Your task to perform on an android device: change the clock display to show seconds Image 0: 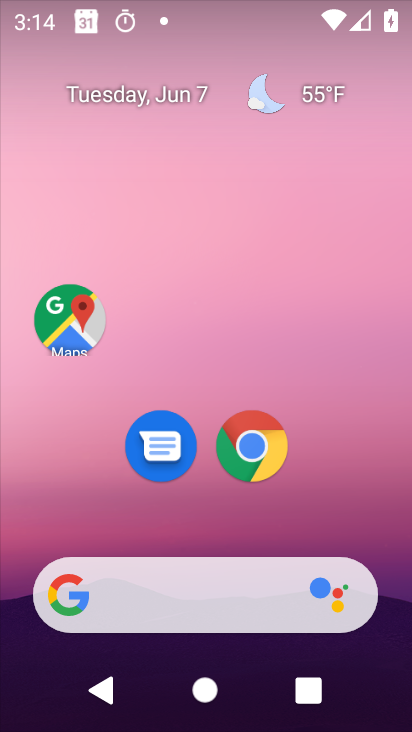
Step 0: drag from (248, 535) to (268, 1)
Your task to perform on an android device: change the clock display to show seconds Image 1: 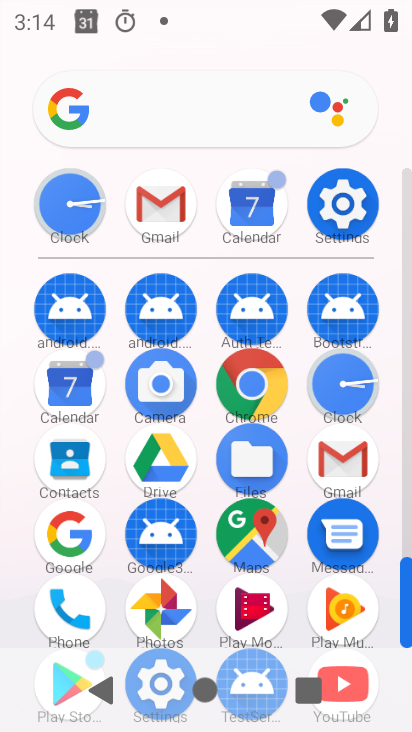
Step 1: click (345, 379)
Your task to perform on an android device: change the clock display to show seconds Image 2: 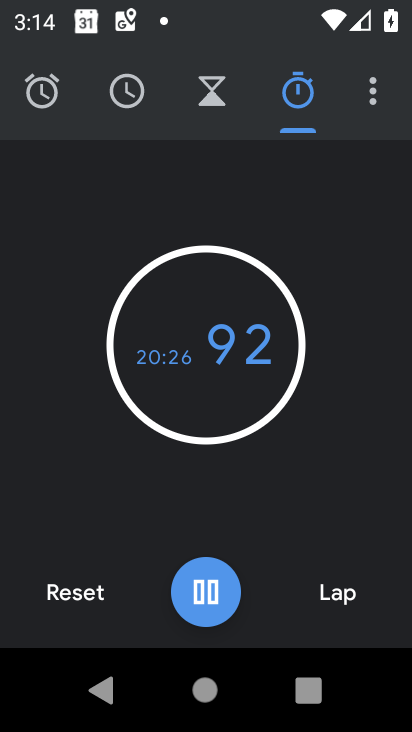
Step 2: click (69, 596)
Your task to perform on an android device: change the clock display to show seconds Image 3: 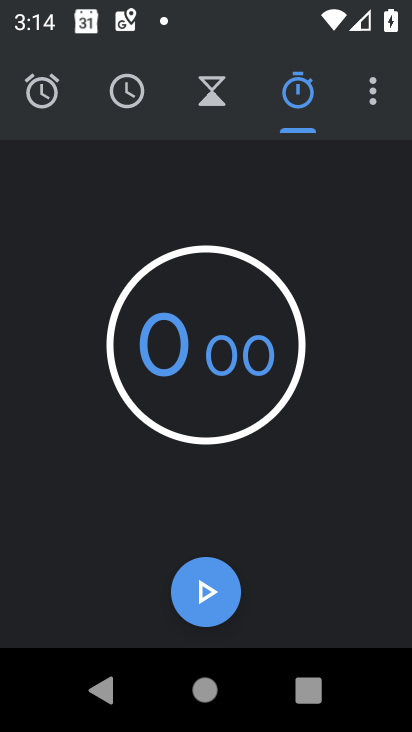
Step 3: click (361, 83)
Your task to perform on an android device: change the clock display to show seconds Image 4: 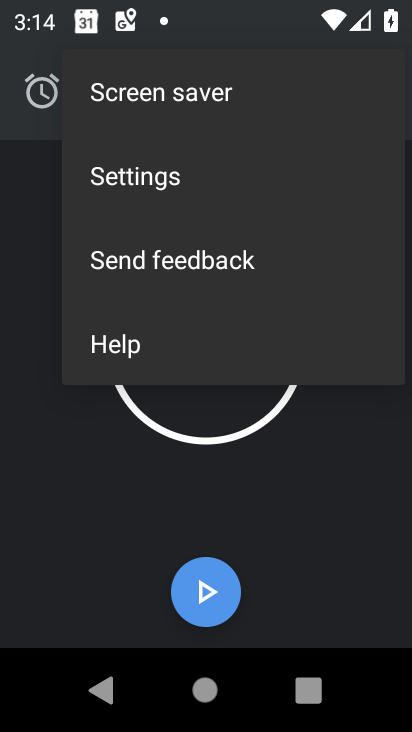
Step 4: click (126, 180)
Your task to perform on an android device: change the clock display to show seconds Image 5: 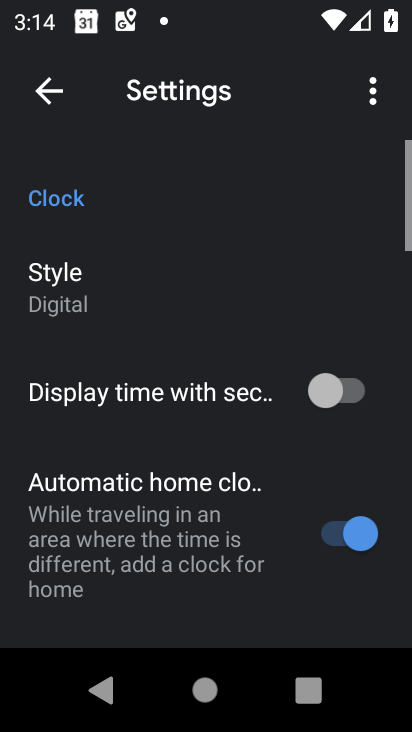
Step 5: click (76, 313)
Your task to perform on an android device: change the clock display to show seconds Image 6: 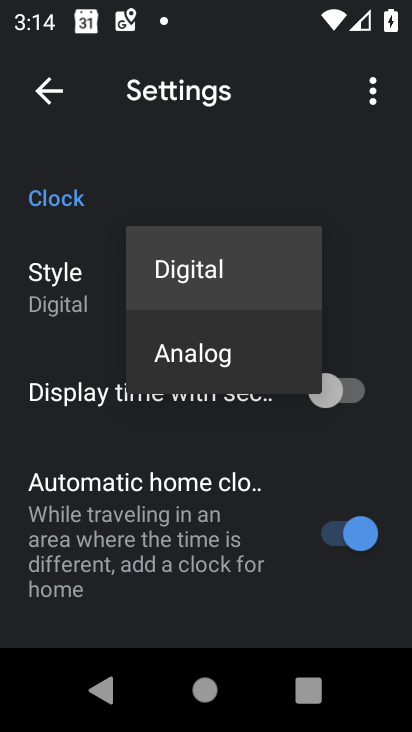
Step 6: click (179, 356)
Your task to perform on an android device: change the clock display to show seconds Image 7: 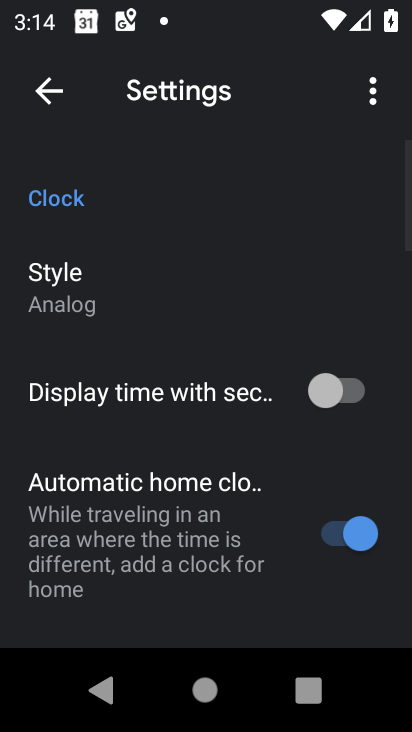
Step 7: click (350, 372)
Your task to perform on an android device: change the clock display to show seconds Image 8: 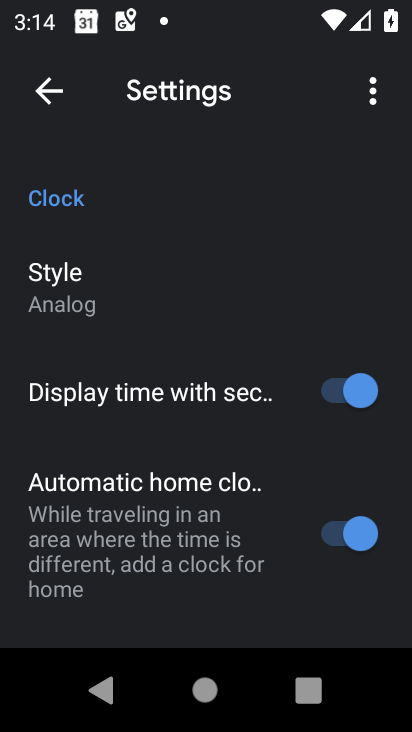
Step 8: task complete